Your task to perform on an android device: What's the weather going to be this weekend? Image 0: 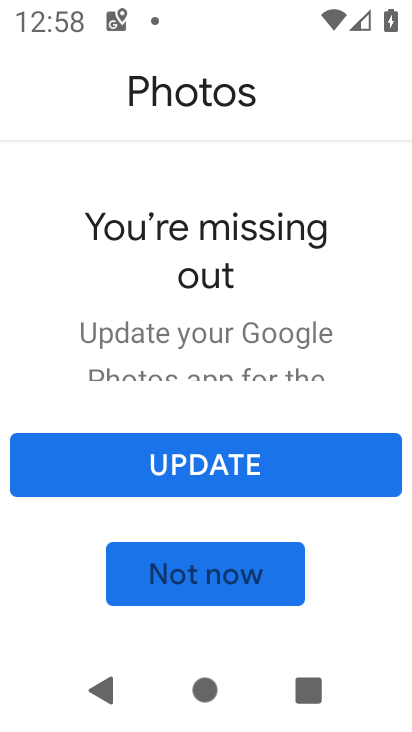
Step 0: press home button
Your task to perform on an android device: What's the weather going to be this weekend? Image 1: 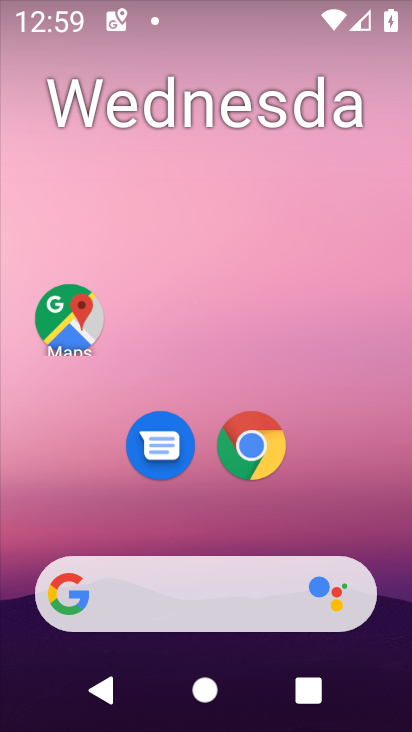
Step 1: drag from (324, 505) to (317, 0)
Your task to perform on an android device: What's the weather going to be this weekend? Image 2: 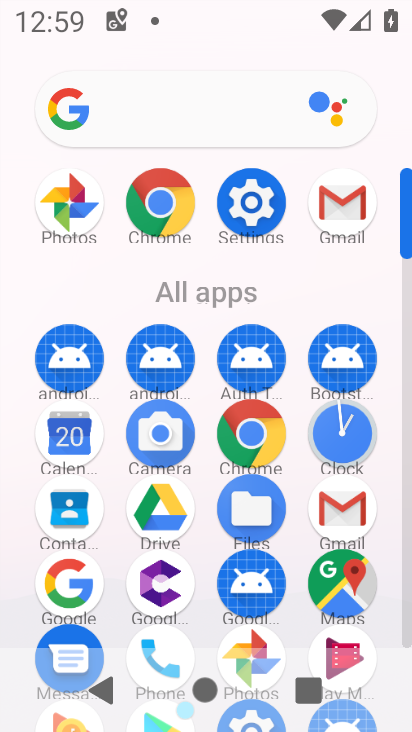
Step 2: click (248, 431)
Your task to perform on an android device: What's the weather going to be this weekend? Image 3: 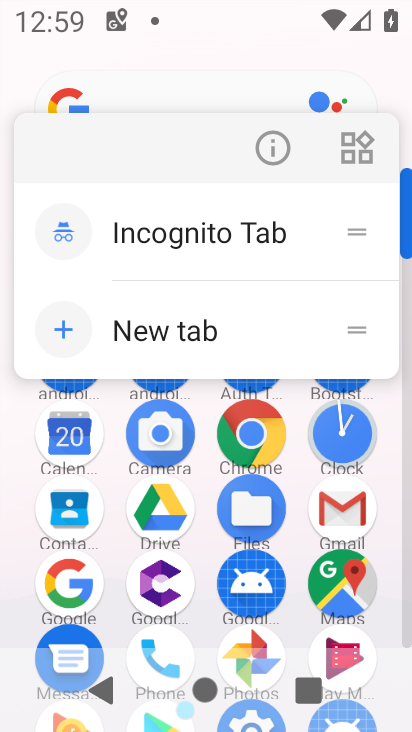
Step 3: click (249, 430)
Your task to perform on an android device: What's the weather going to be this weekend? Image 4: 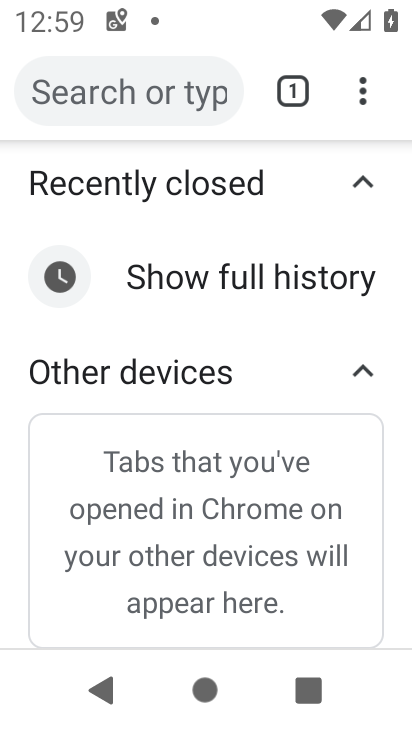
Step 4: click (178, 86)
Your task to perform on an android device: What's the weather going to be this weekend? Image 5: 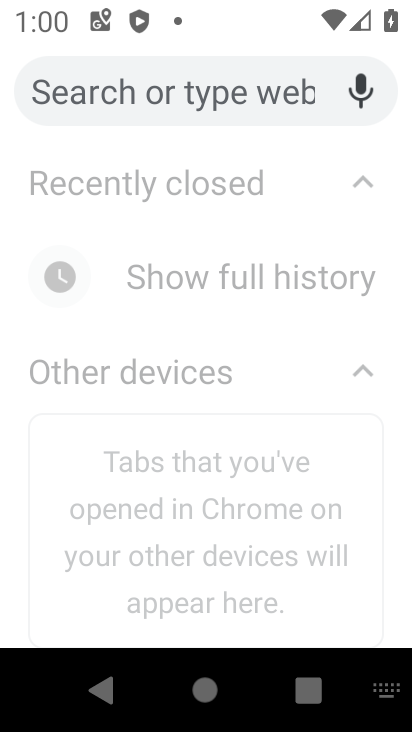
Step 5: type "weather"
Your task to perform on an android device: What's the weather going to be this weekend? Image 6: 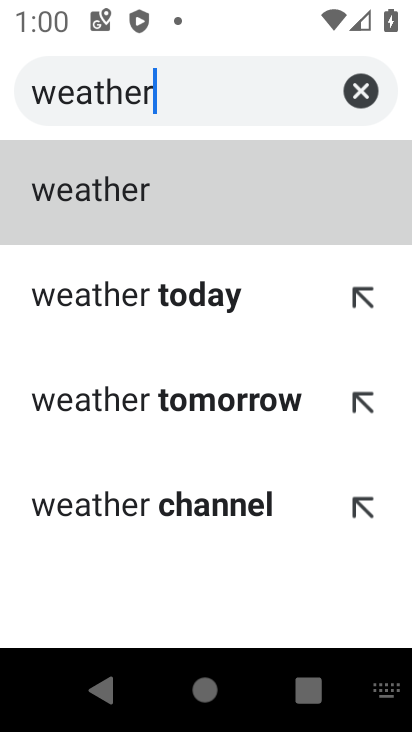
Step 6: click (220, 189)
Your task to perform on an android device: What's the weather going to be this weekend? Image 7: 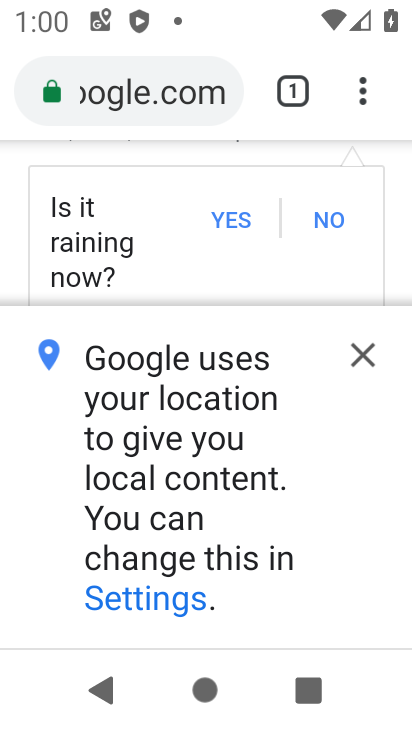
Step 7: click (371, 355)
Your task to perform on an android device: What's the weather going to be this weekend? Image 8: 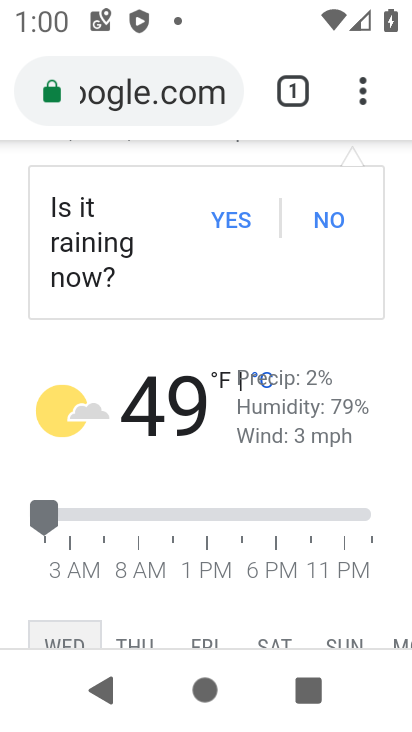
Step 8: task complete